Your task to perform on an android device: toggle show notifications on the lock screen Image 0: 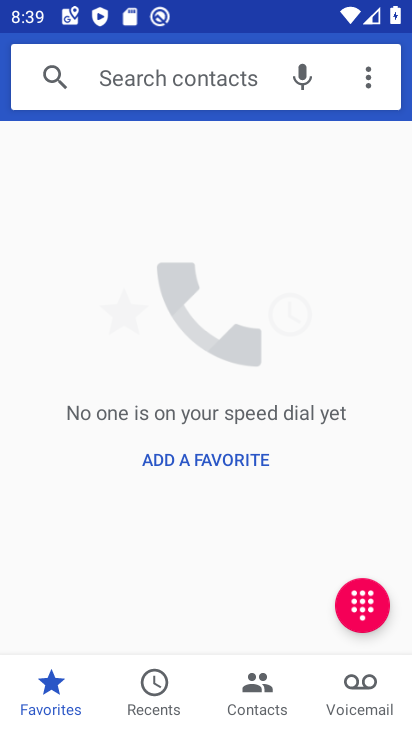
Step 0: press home button
Your task to perform on an android device: toggle show notifications on the lock screen Image 1: 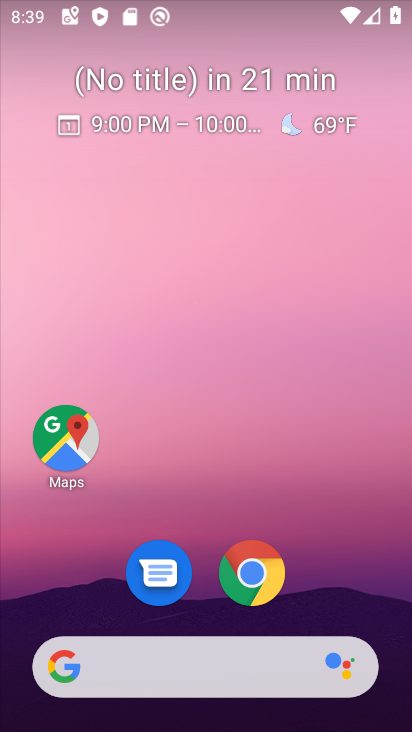
Step 1: drag from (207, 617) to (287, 232)
Your task to perform on an android device: toggle show notifications on the lock screen Image 2: 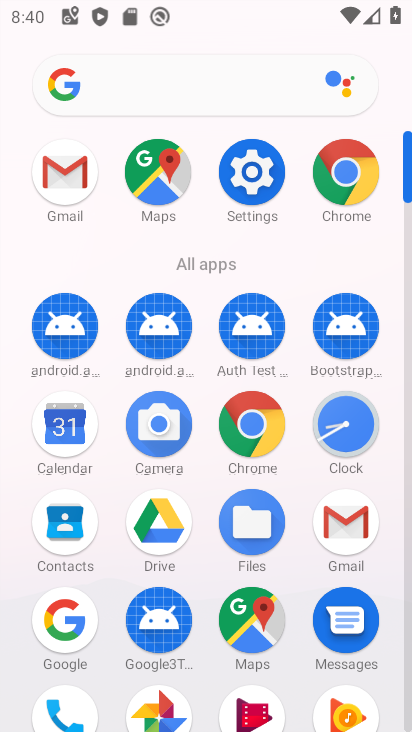
Step 2: click (255, 192)
Your task to perform on an android device: toggle show notifications on the lock screen Image 3: 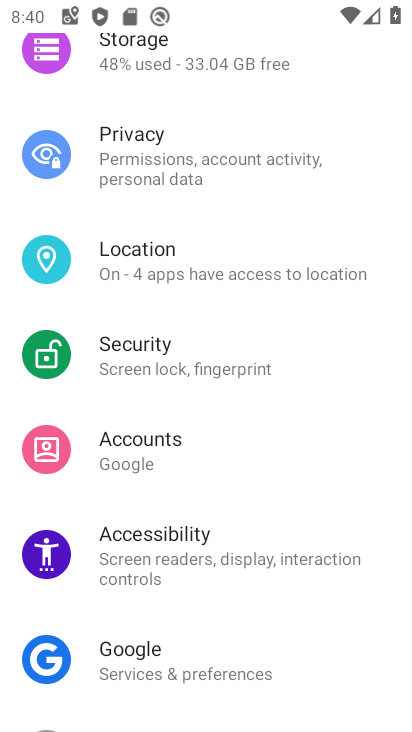
Step 3: drag from (246, 208) to (222, 451)
Your task to perform on an android device: toggle show notifications on the lock screen Image 4: 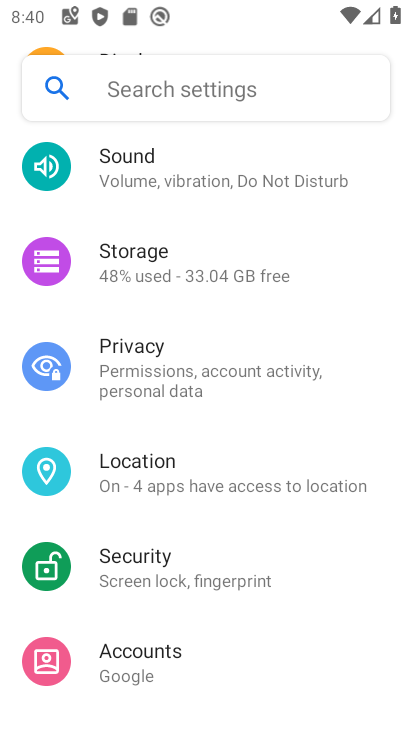
Step 4: drag from (220, 260) to (213, 515)
Your task to perform on an android device: toggle show notifications on the lock screen Image 5: 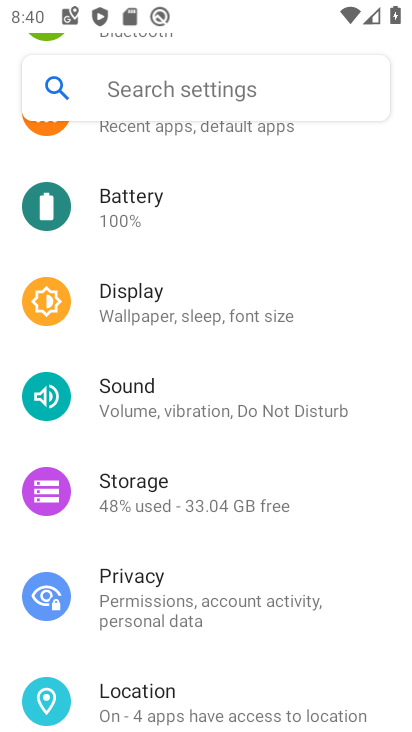
Step 5: drag from (197, 202) to (185, 664)
Your task to perform on an android device: toggle show notifications on the lock screen Image 6: 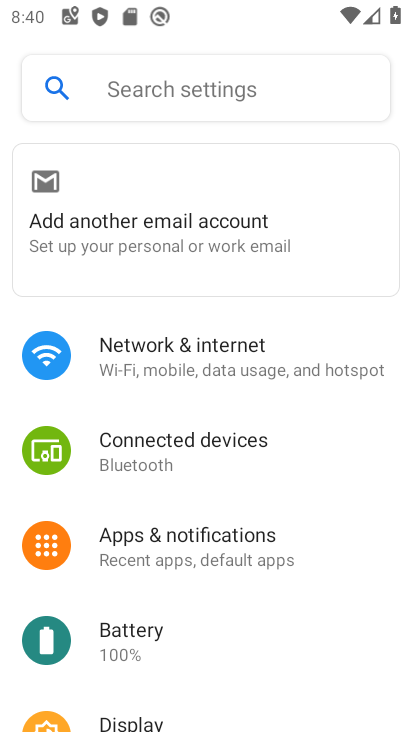
Step 6: click (183, 563)
Your task to perform on an android device: toggle show notifications on the lock screen Image 7: 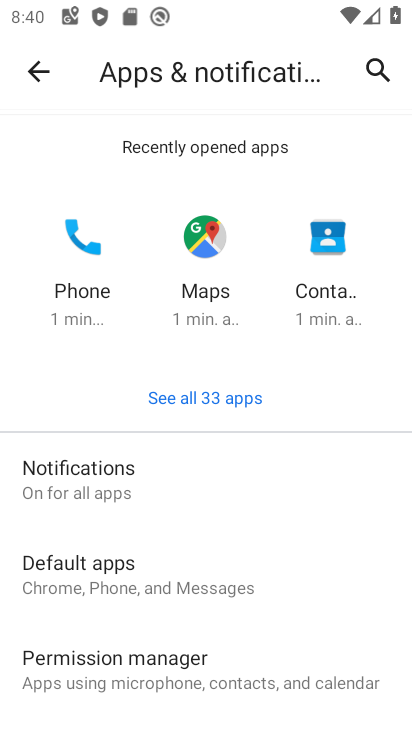
Step 7: click (93, 482)
Your task to perform on an android device: toggle show notifications on the lock screen Image 8: 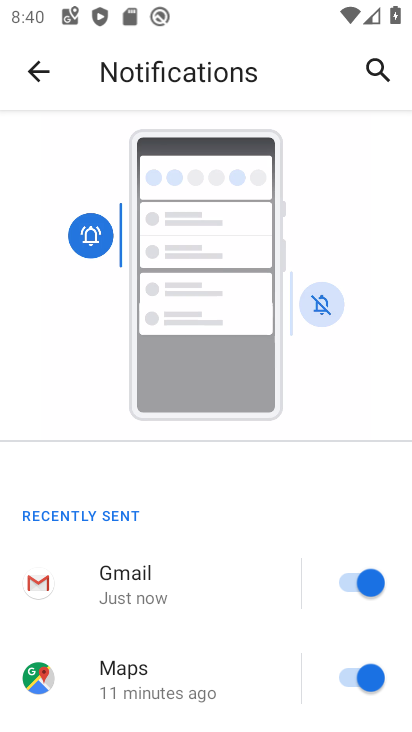
Step 8: drag from (125, 583) to (189, 183)
Your task to perform on an android device: toggle show notifications on the lock screen Image 9: 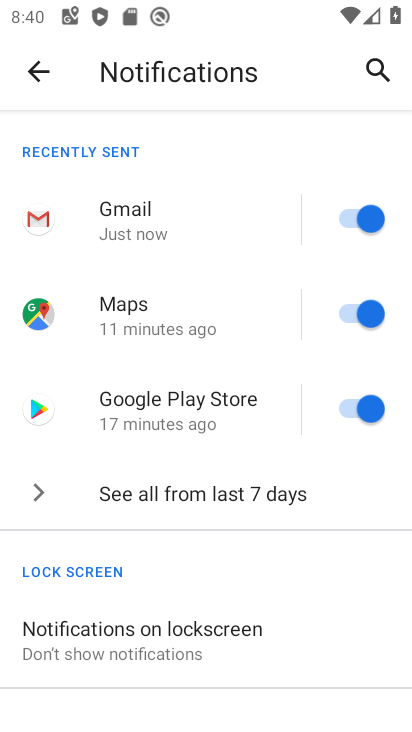
Step 9: drag from (141, 614) to (136, 464)
Your task to perform on an android device: toggle show notifications on the lock screen Image 10: 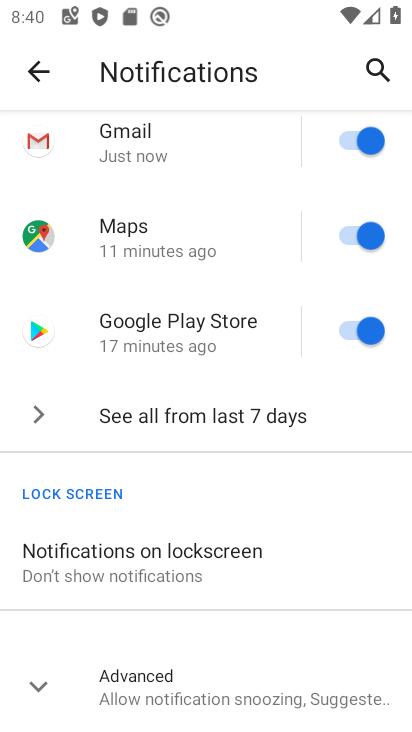
Step 10: click (103, 560)
Your task to perform on an android device: toggle show notifications on the lock screen Image 11: 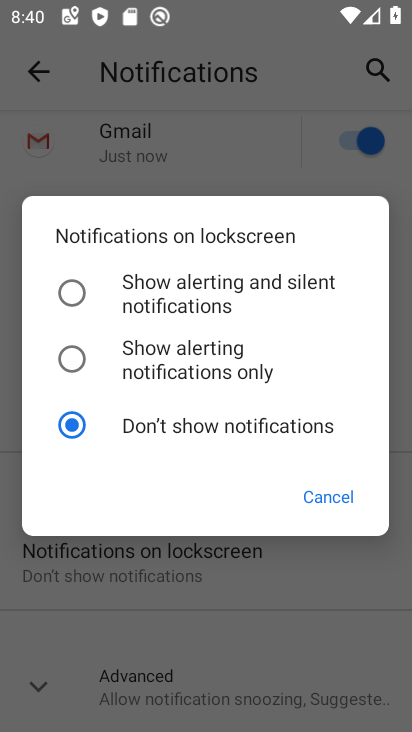
Step 11: click (73, 306)
Your task to perform on an android device: toggle show notifications on the lock screen Image 12: 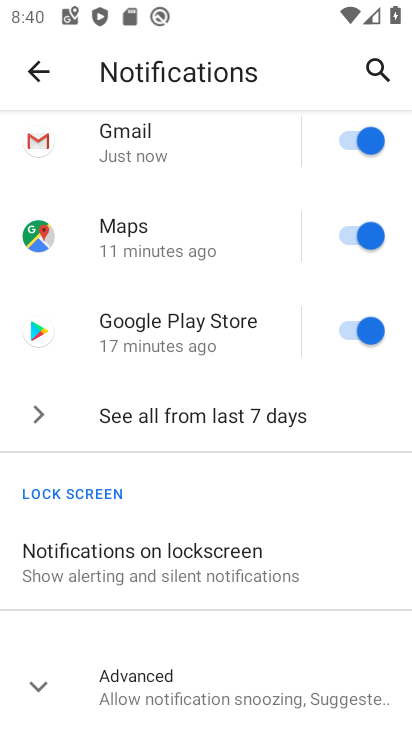
Step 12: task complete